Your task to perform on an android device: Go to notification settings Image 0: 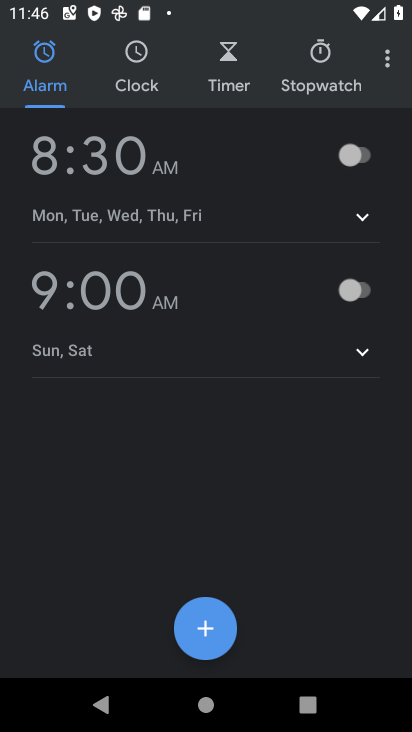
Step 0: task complete